Your task to perform on an android device: Open Amazon Image 0: 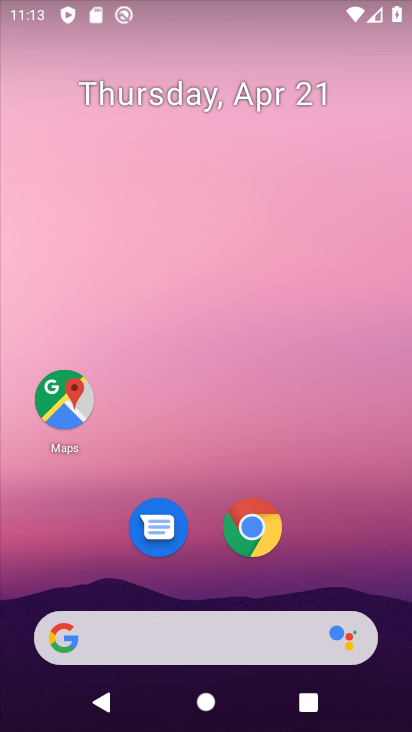
Step 0: click (241, 539)
Your task to perform on an android device: Open Amazon Image 1: 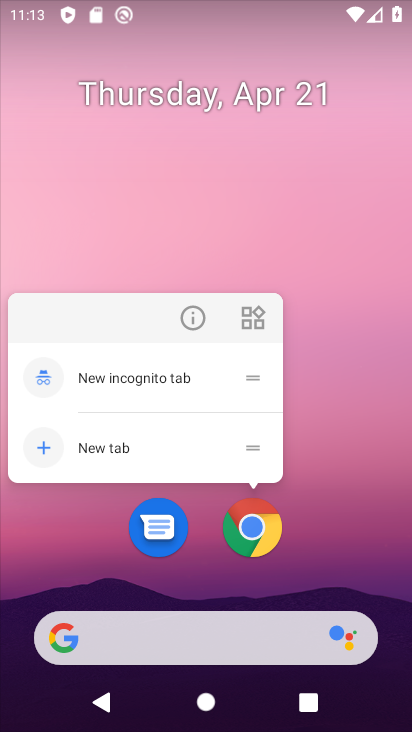
Step 1: click (266, 562)
Your task to perform on an android device: Open Amazon Image 2: 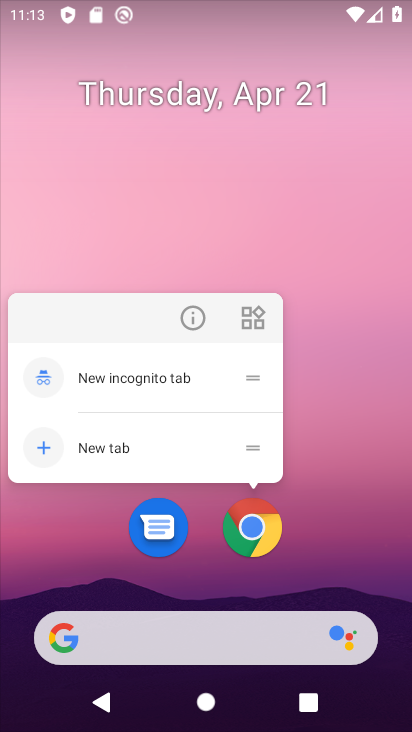
Step 2: click (255, 549)
Your task to perform on an android device: Open Amazon Image 3: 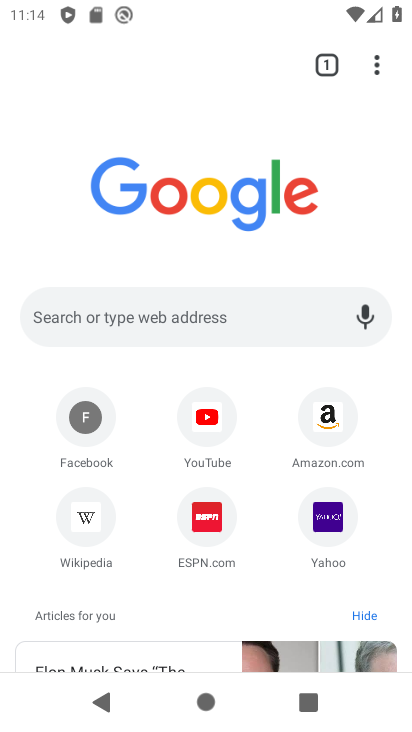
Step 3: click (330, 441)
Your task to perform on an android device: Open Amazon Image 4: 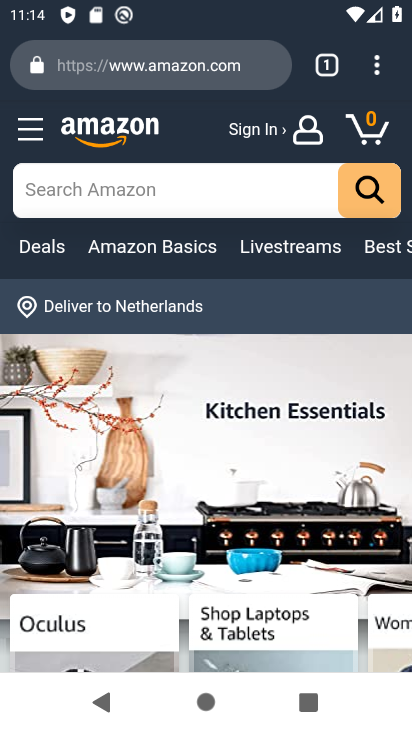
Step 4: task complete